Your task to perform on an android device: Search for sushi restaurants on Maps Image 0: 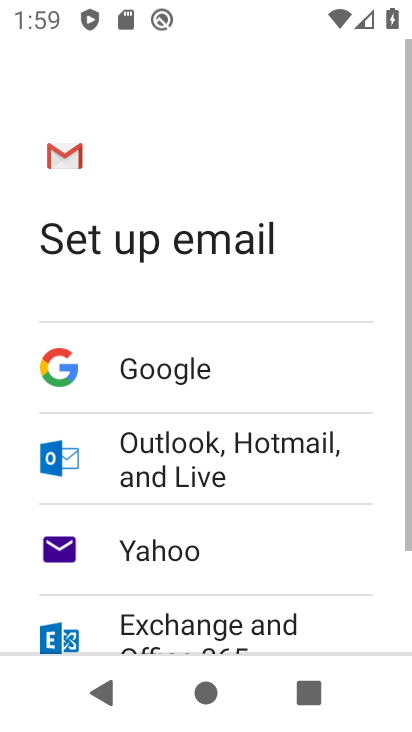
Step 0: press home button
Your task to perform on an android device: Search for sushi restaurants on Maps Image 1: 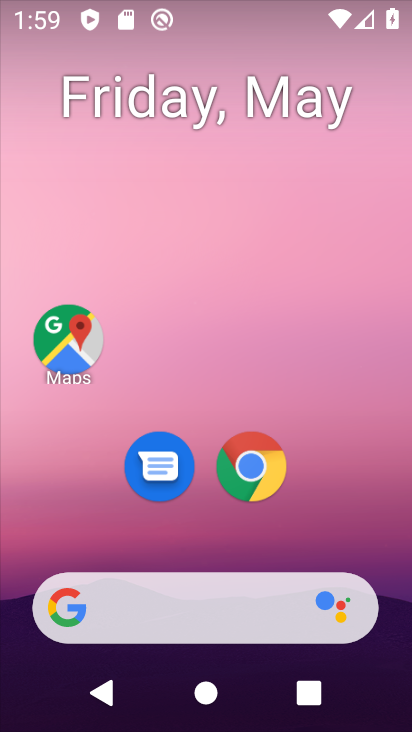
Step 1: click (67, 334)
Your task to perform on an android device: Search for sushi restaurants on Maps Image 2: 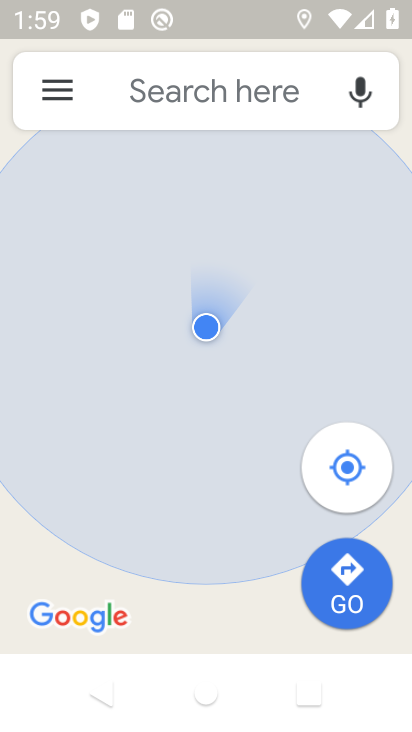
Step 2: click (175, 91)
Your task to perform on an android device: Search for sushi restaurants on Maps Image 3: 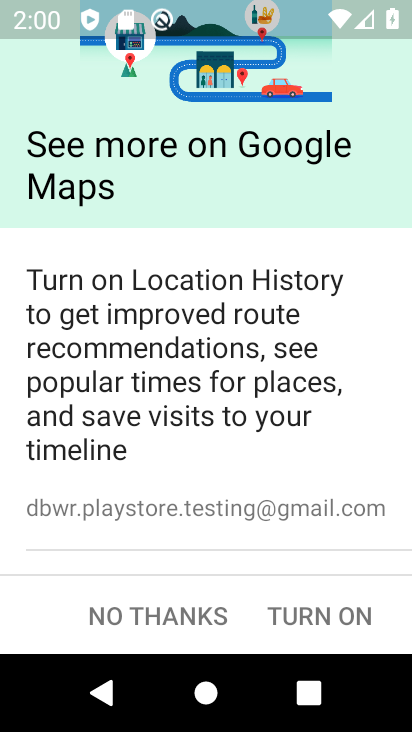
Step 3: click (190, 609)
Your task to perform on an android device: Search for sushi restaurants on Maps Image 4: 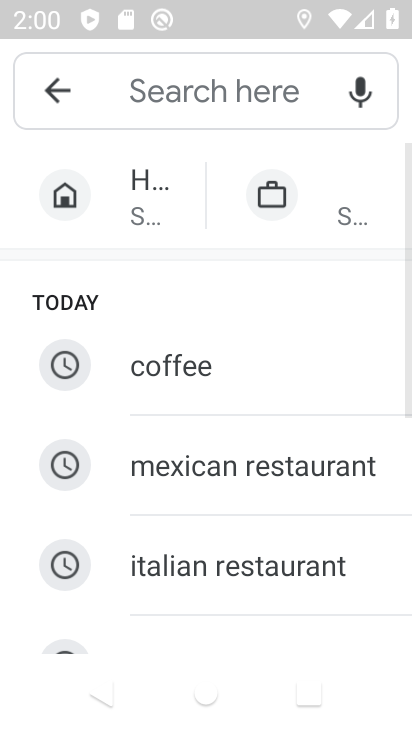
Step 4: click (141, 88)
Your task to perform on an android device: Search for sushi restaurants on Maps Image 5: 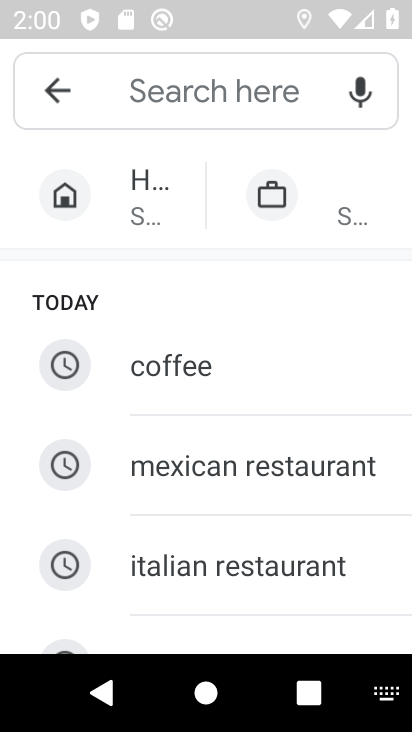
Step 5: type " sushi restaurants"
Your task to perform on an android device: Search for sushi restaurants on Maps Image 6: 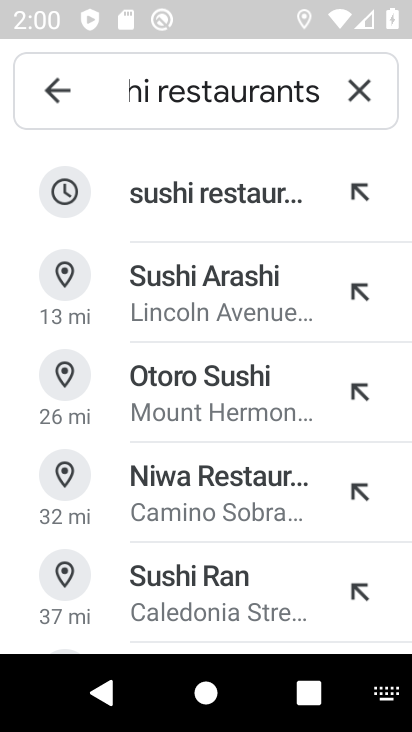
Step 6: click (210, 194)
Your task to perform on an android device: Search for sushi restaurants on Maps Image 7: 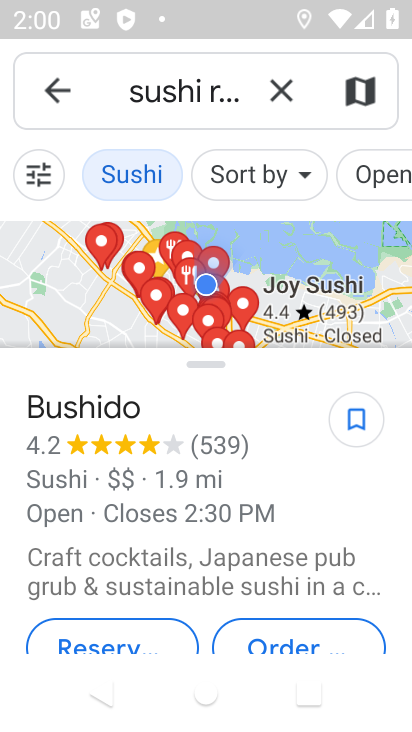
Step 7: task complete